Your task to perform on an android device: When is my next appointment? Image 0: 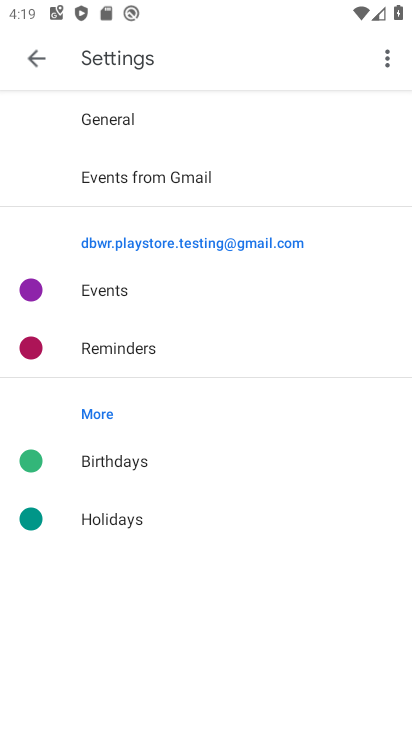
Step 0: press home button
Your task to perform on an android device: When is my next appointment? Image 1: 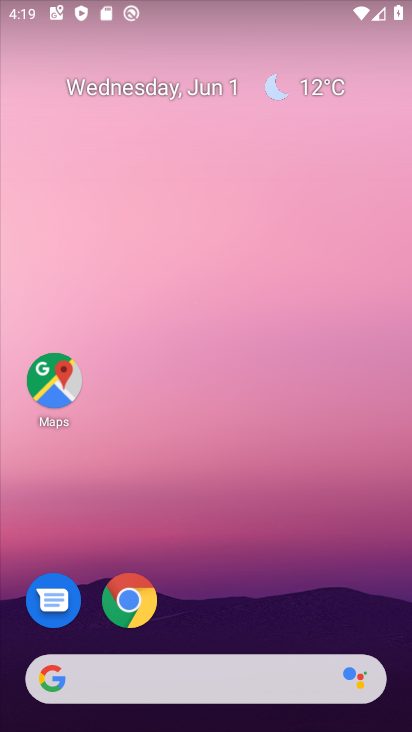
Step 1: drag from (380, 624) to (287, 86)
Your task to perform on an android device: When is my next appointment? Image 2: 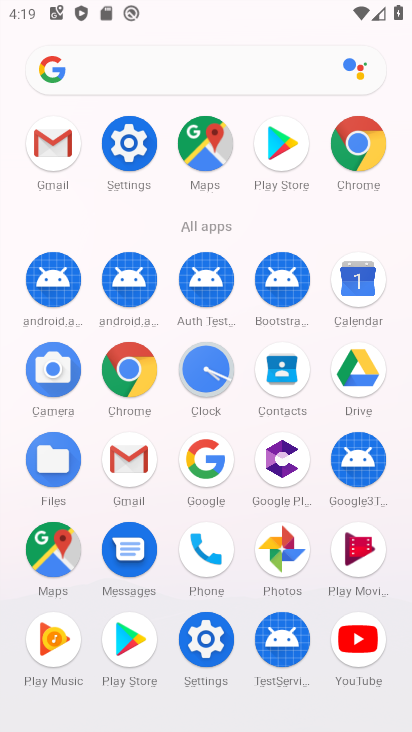
Step 2: click (357, 277)
Your task to perform on an android device: When is my next appointment? Image 3: 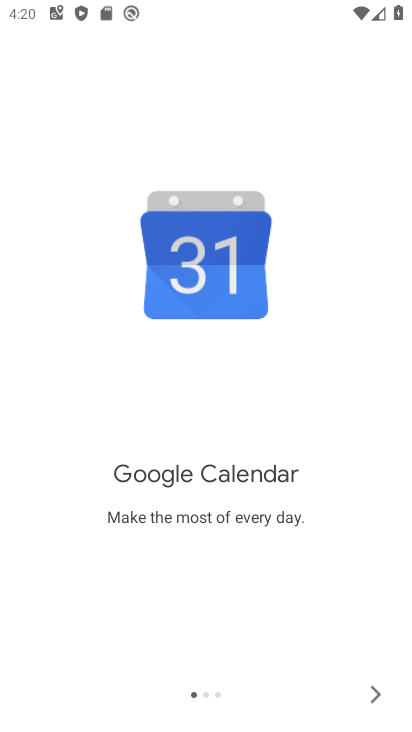
Step 3: click (375, 693)
Your task to perform on an android device: When is my next appointment? Image 4: 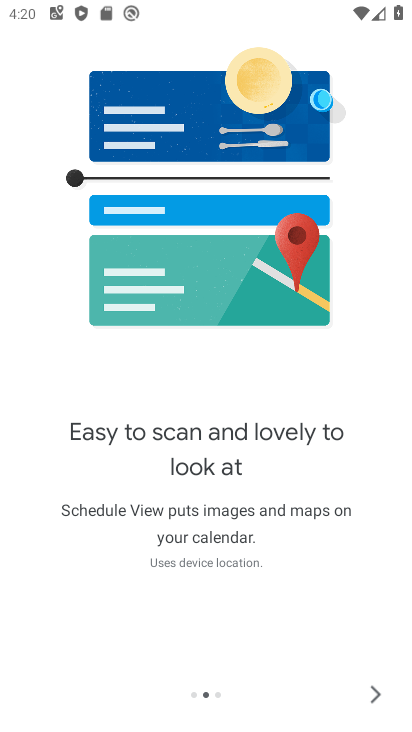
Step 4: click (375, 693)
Your task to perform on an android device: When is my next appointment? Image 5: 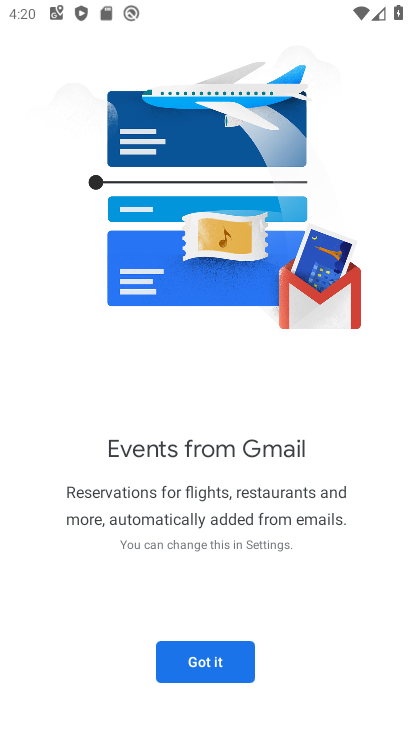
Step 5: click (195, 661)
Your task to perform on an android device: When is my next appointment? Image 6: 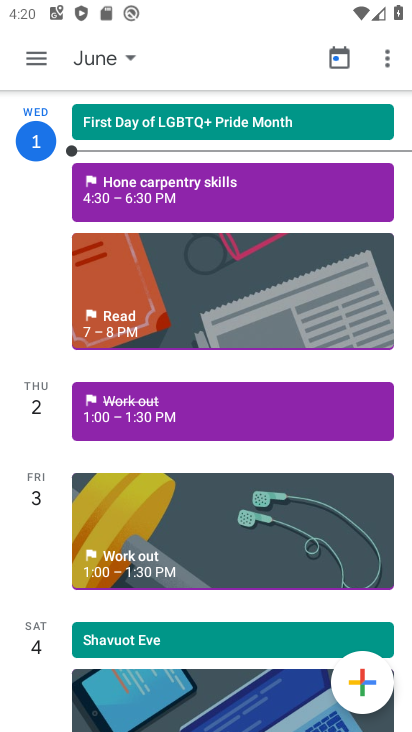
Step 6: click (33, 63)
Your task to perform on an android device: When is my next appointment? Image 7: 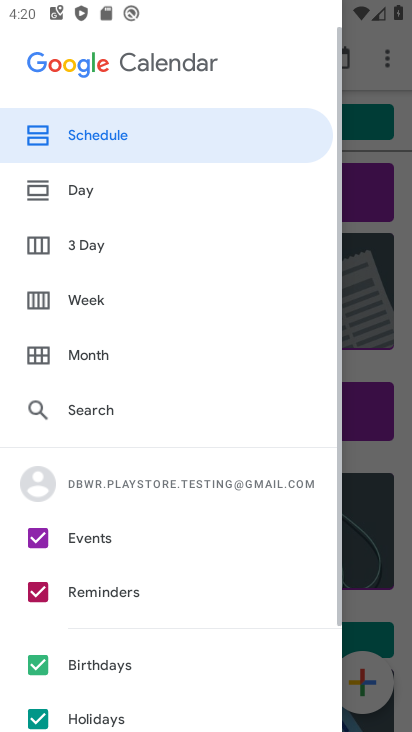
Step 7: click (79, 134)
Your task to perform on an android device: When is my next appointment? Image 8: 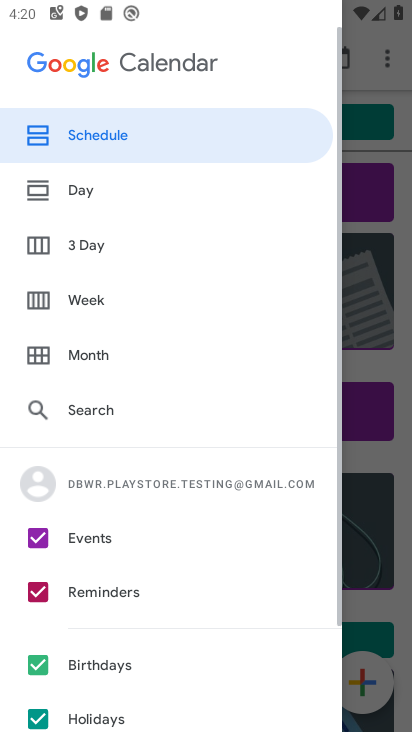
Step 8: click (135, 132)
Your task to perform on an android device: When is my next appointment? Image 9: 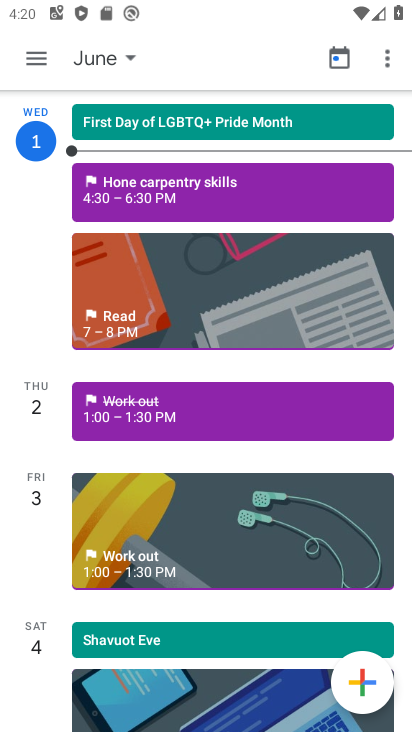
Step 9: click (135, 132)
Your task to perform on an android device: When is my next appointment? Image 10: 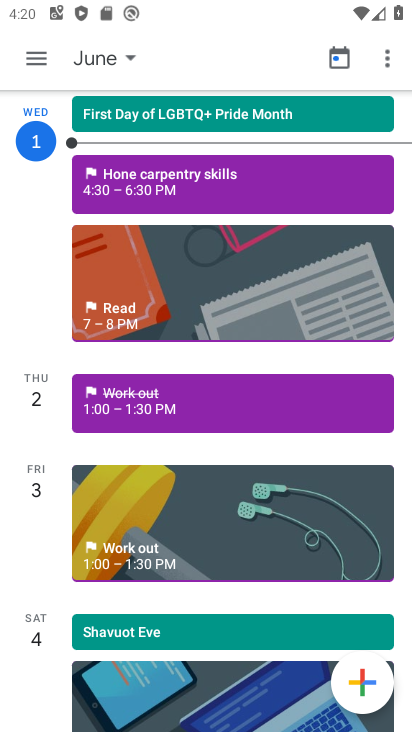
Step 10: task complete